Your task to perform on an android device: open device folders in google photos Image 0: 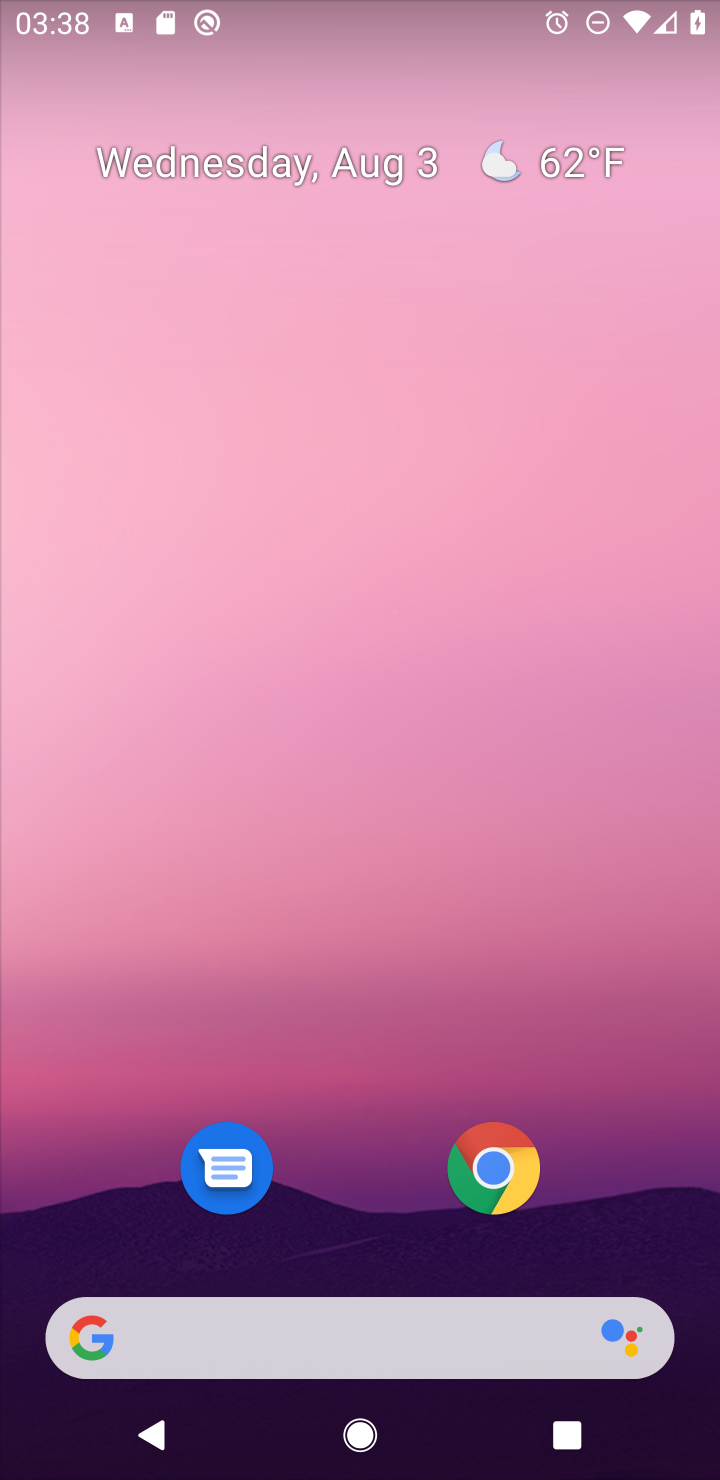
Step 0: drag from (684, 1244) to (594, 197)
Your task to perform on an android device: open device folders in google photos Image 1: 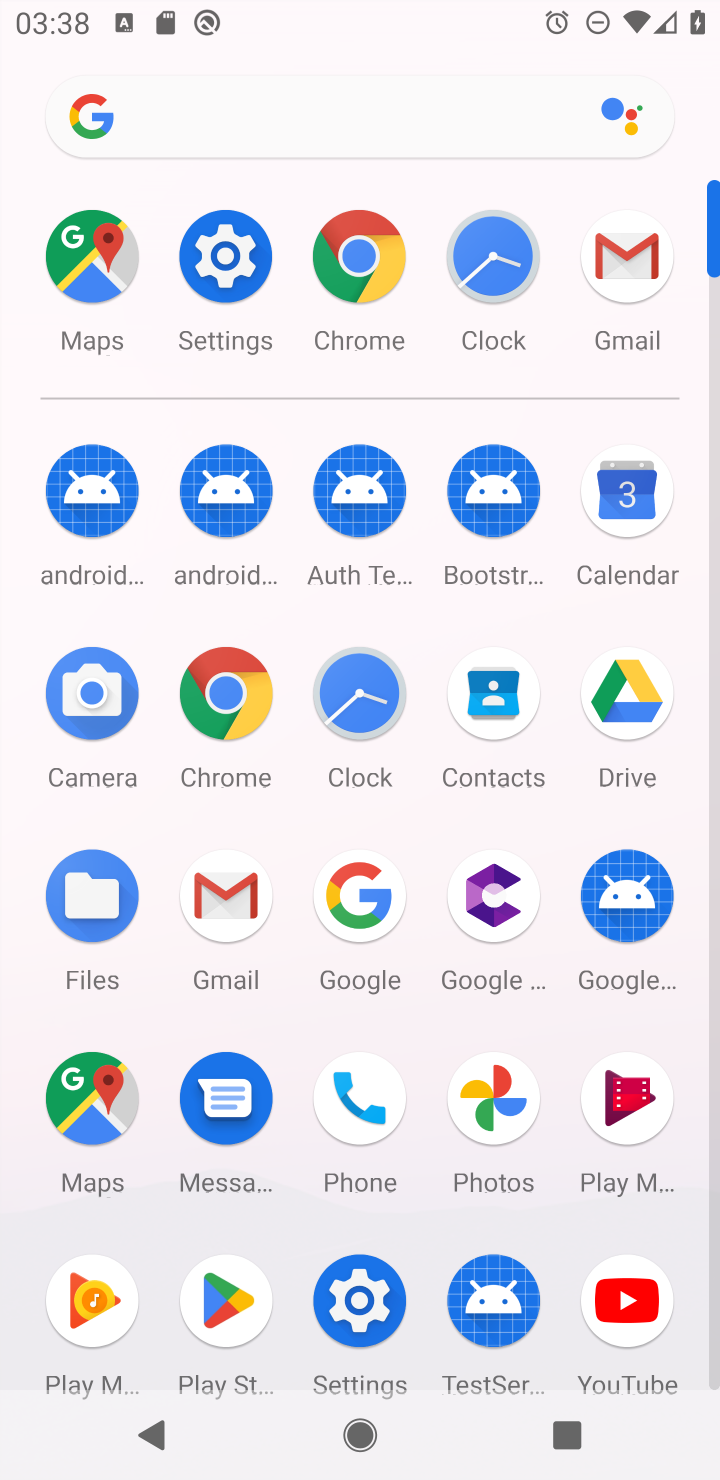
Step 1: click (491, 1098)
Your task to perform on an android device: open device folders in google photos Image 2: 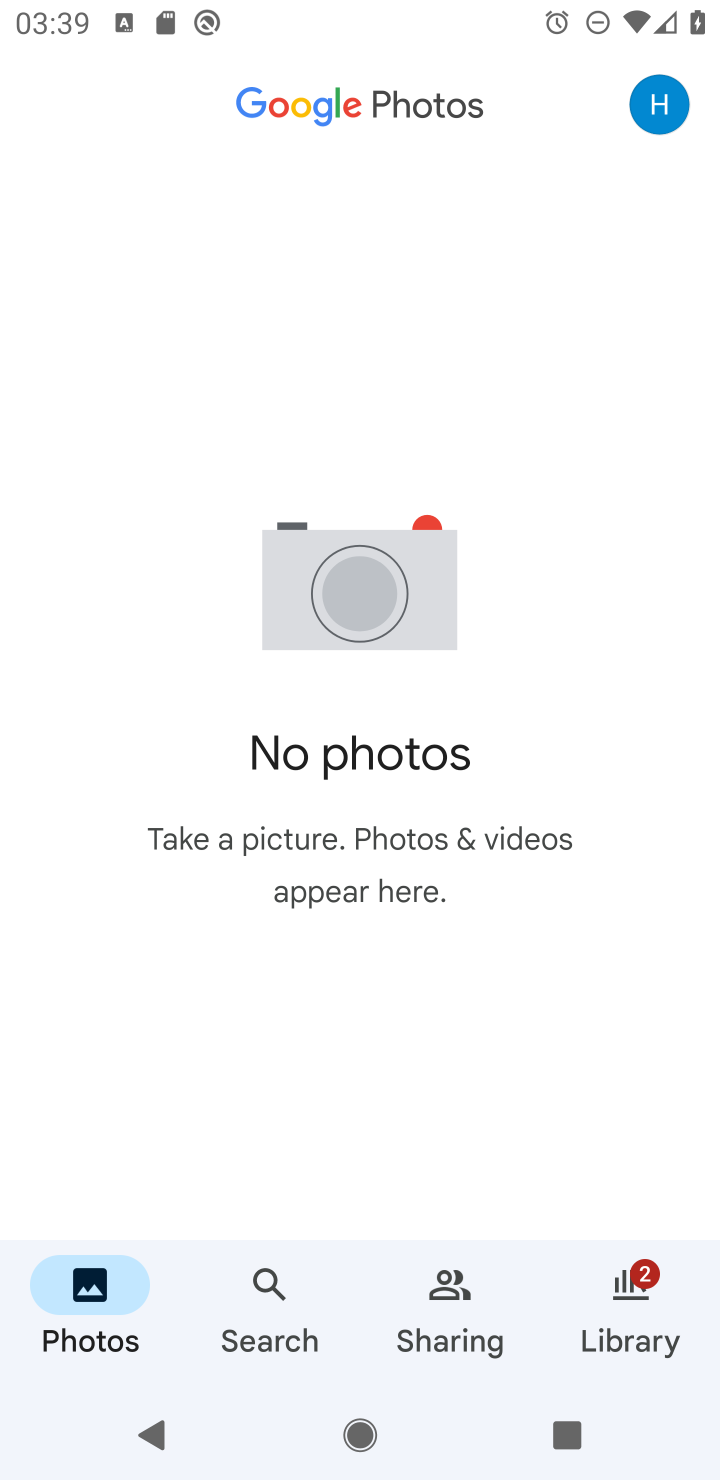
Step 2: task complete